Your task to perform on an android device: Search for 24"x36" picture frame on Home Depot. Image 0: 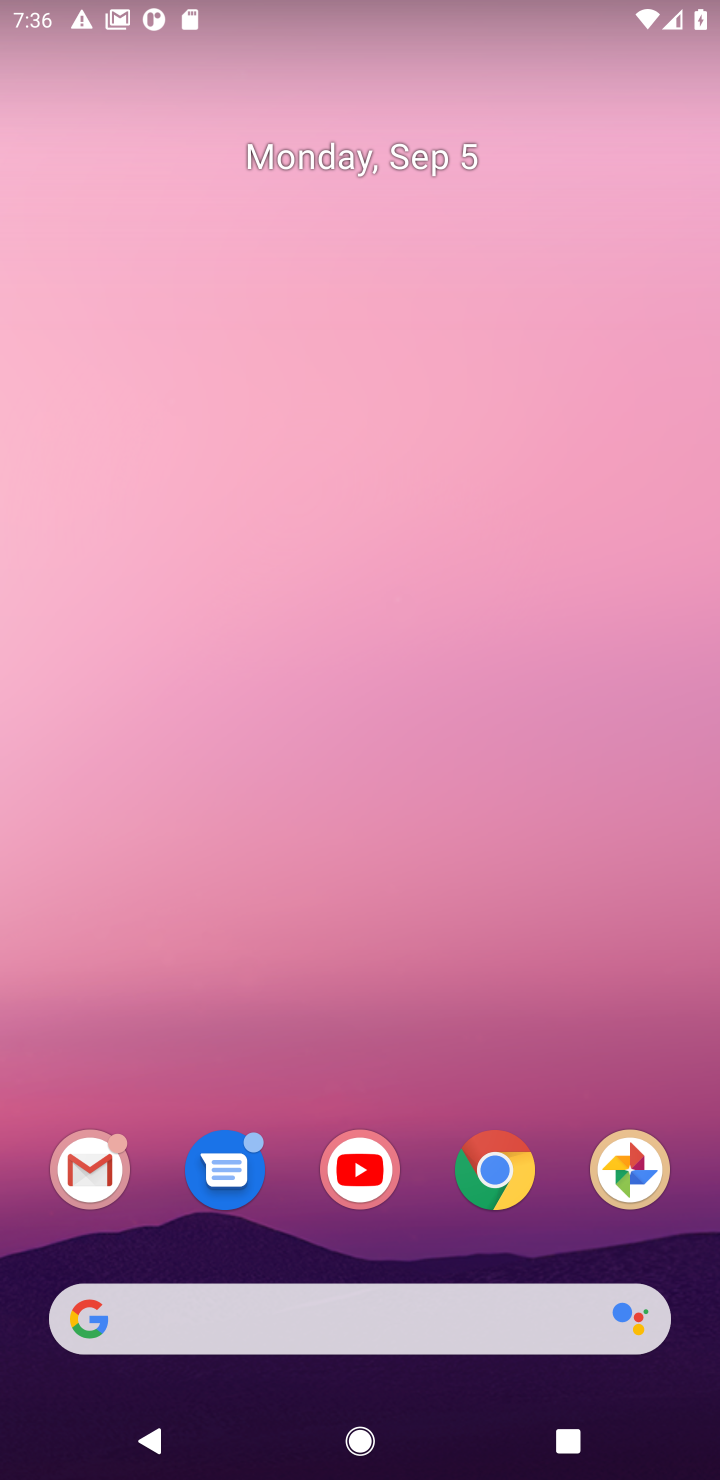
Step 0: click (493, 1166)
Your task to perform on an android device: Search for 24"x36" picture frame on Home Depot. Image 1: 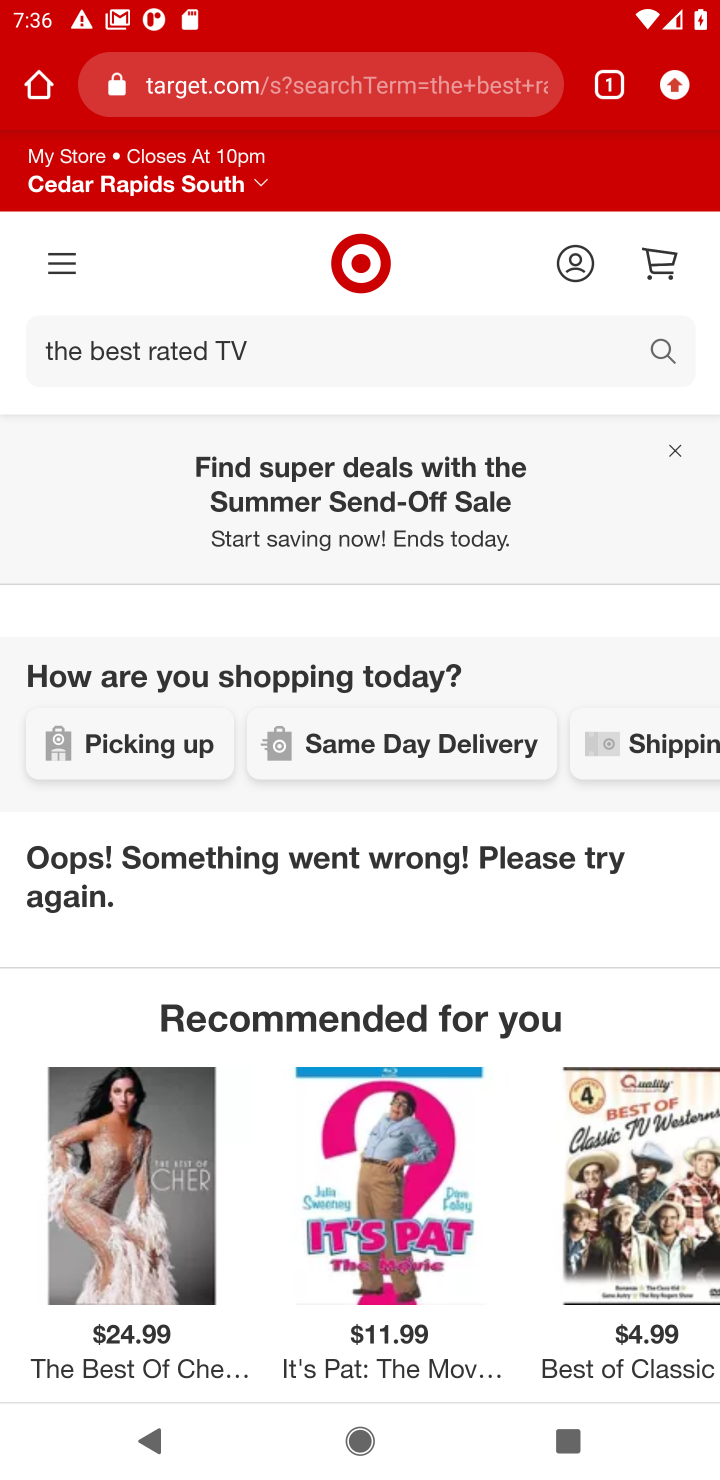
Step 1: click (277, 81)
Your task to perform on an android device: Search for 24"x36" picture frame on Home Depot. Image 2: 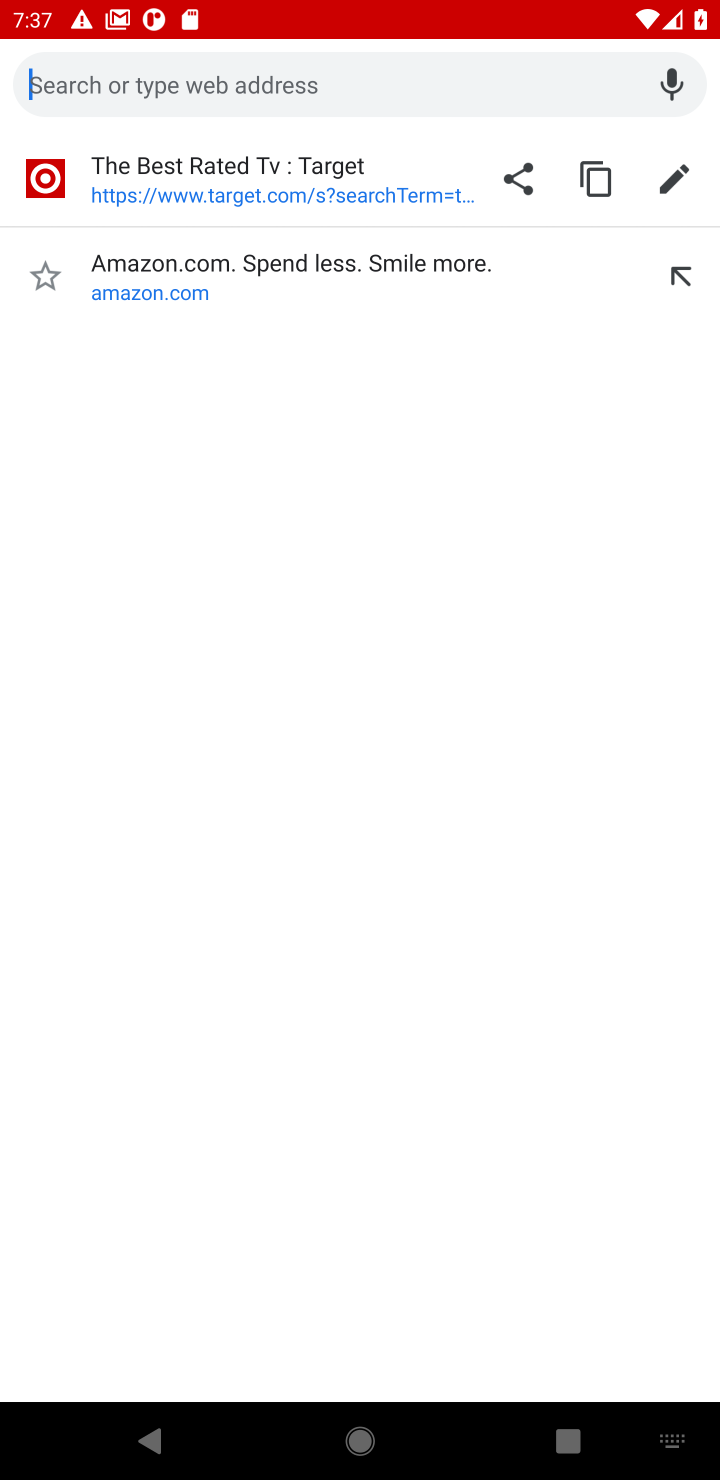
Step 2: type "home depot"
Your task to perform on an android device: Search for 24"x36" picture frame on Home Depot. Image 3: 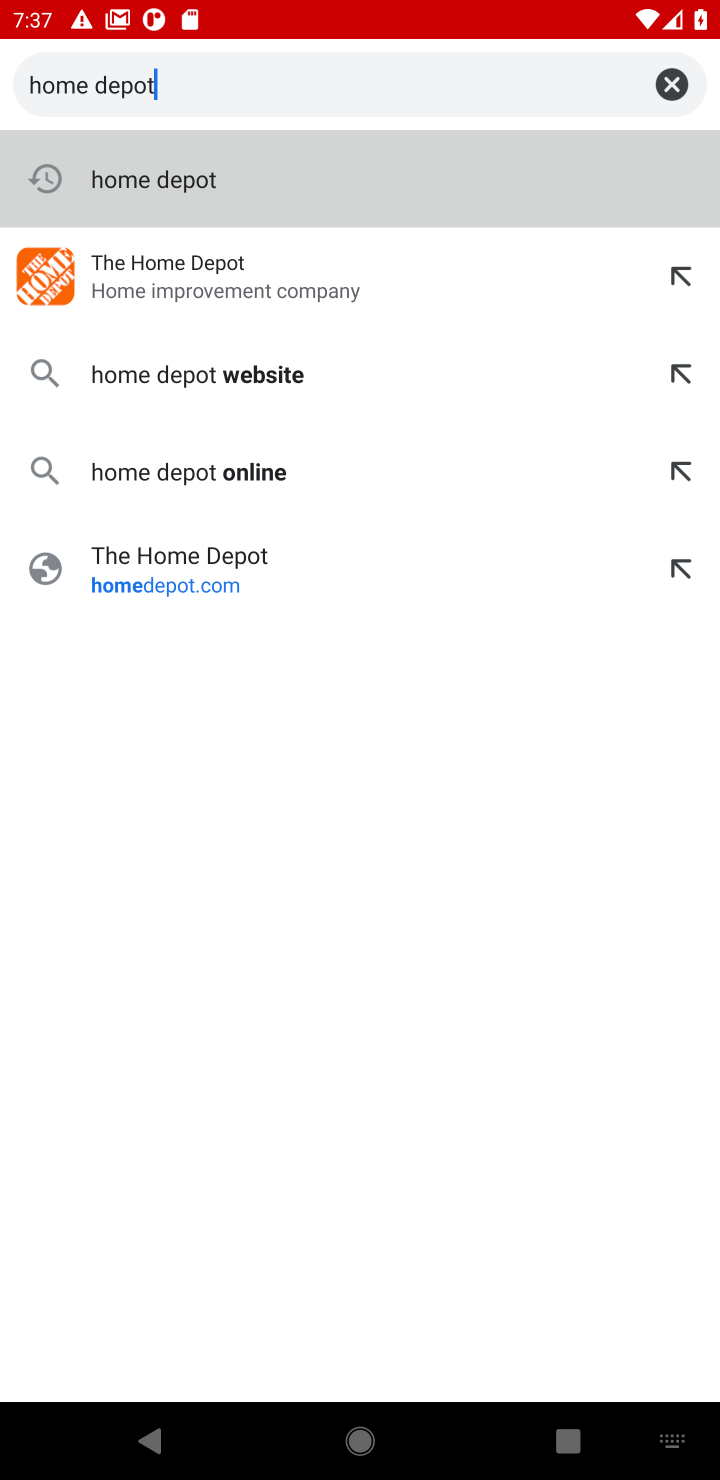
Step 3: click (220, 267)
Your task to perform on an android device: Search for 24"x36" picture frame on Home Depot. Image 4: 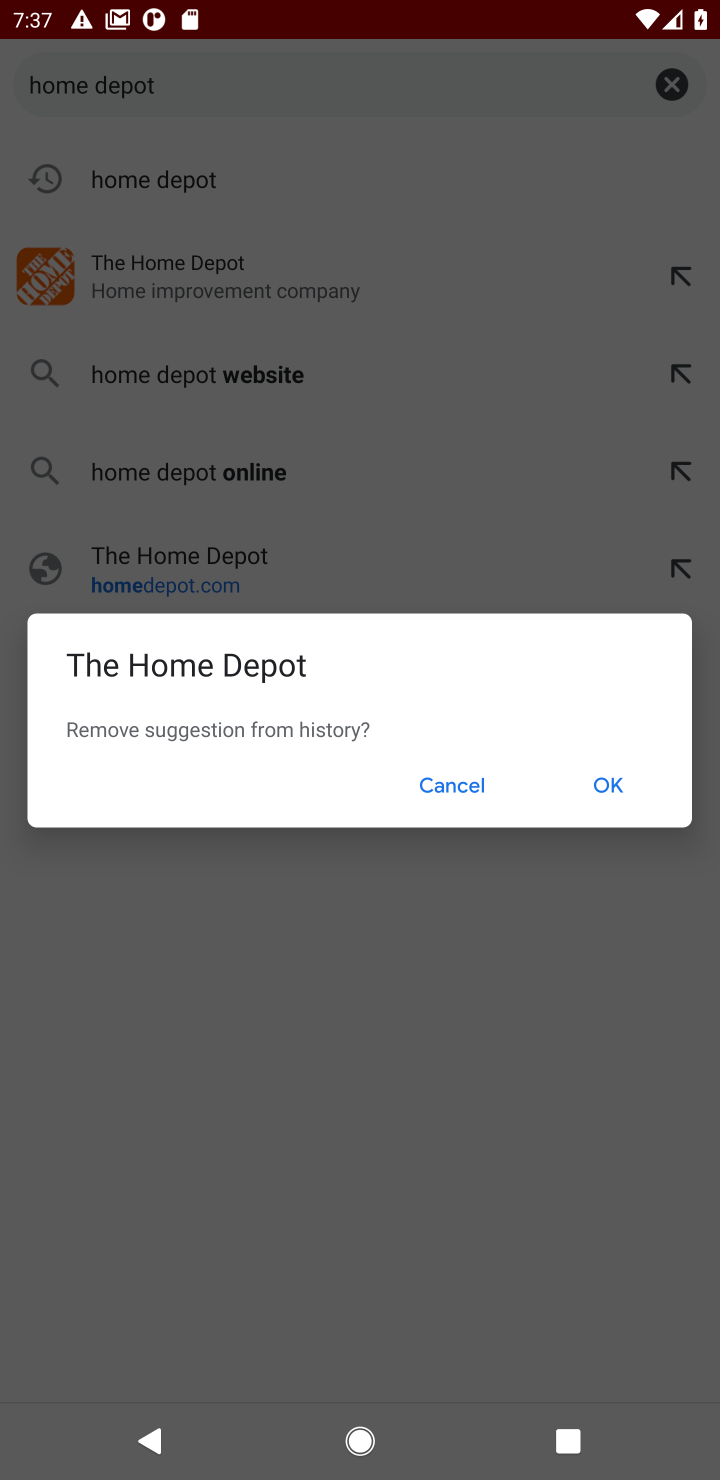
Step 4: click (436, 776)
Your task to perform on an android device: Search for 24"x36" picture frame on Home Depot. Image 5: 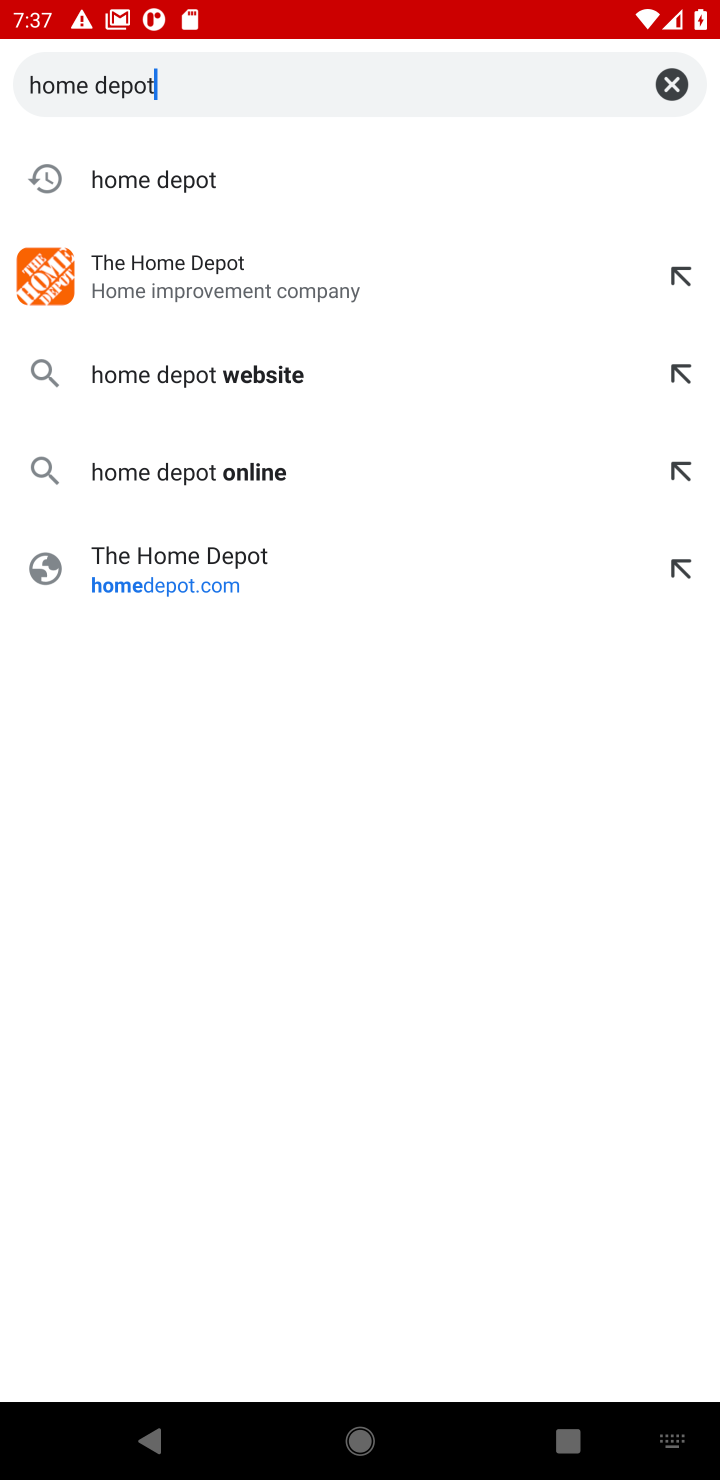
Step 5: click (259, 256)
Your task to perform on an android device: Search for 24"x36" picture frame on Home Depot. Image 6: 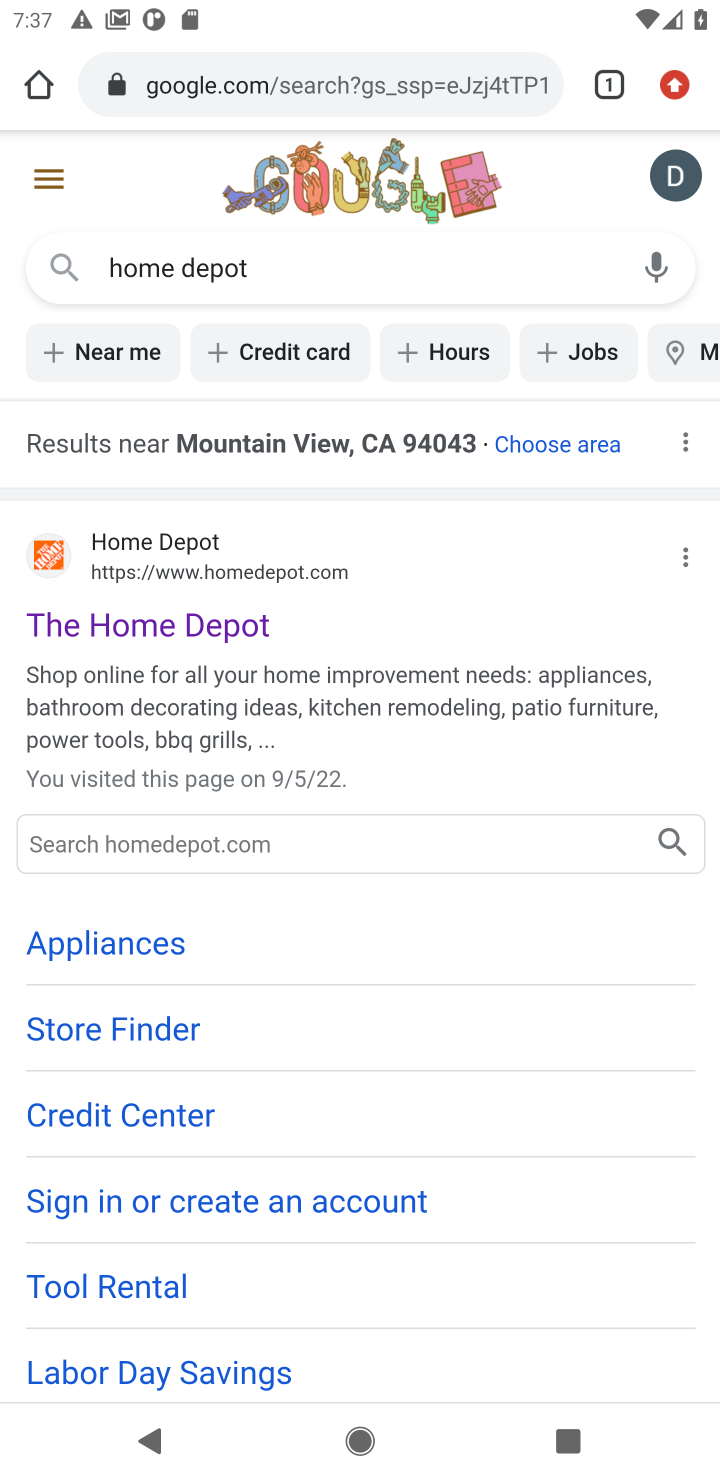
Step 6: click (194, 622)
Your task to perform on an android device: Search for 24"x36" picture frame on Home Depot. Image 7: 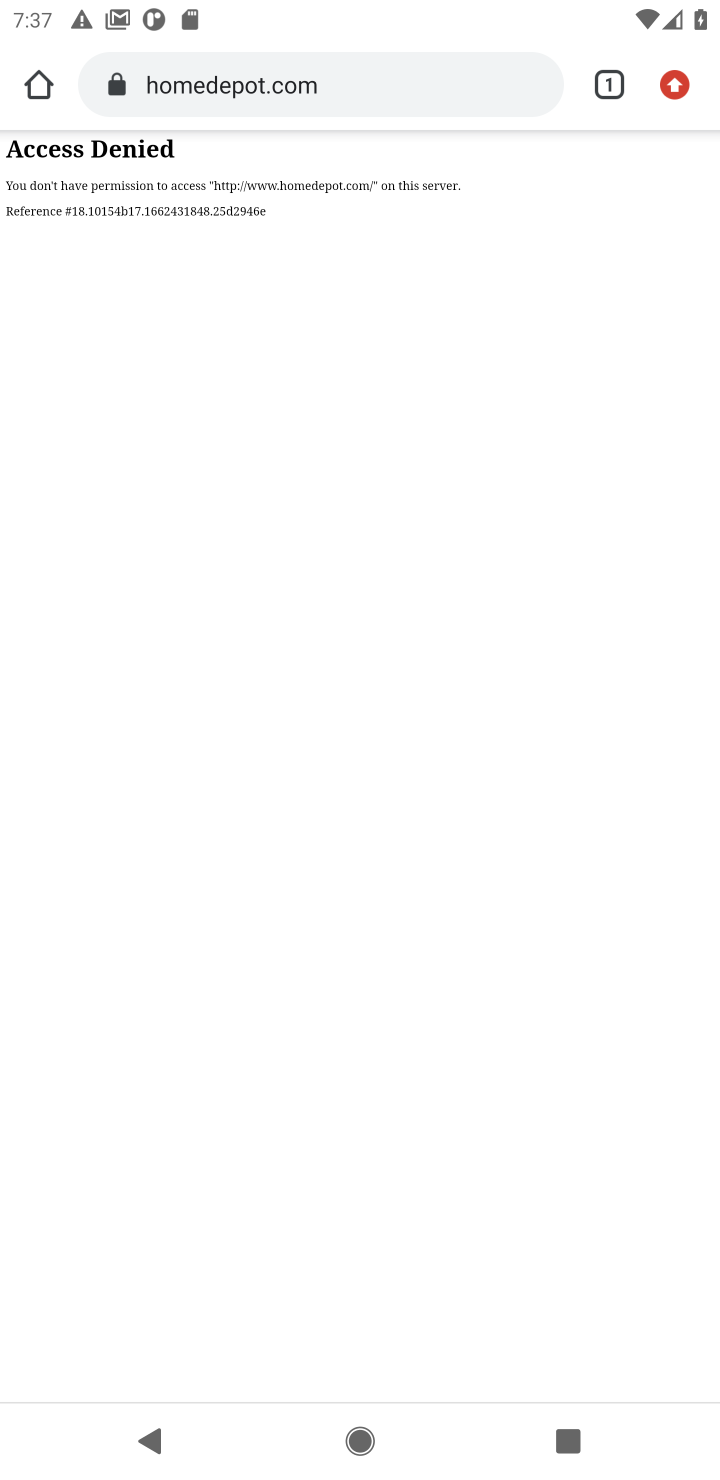
Step 7: task complete